Your task to perform on an android device: Open battery settings Image 0: 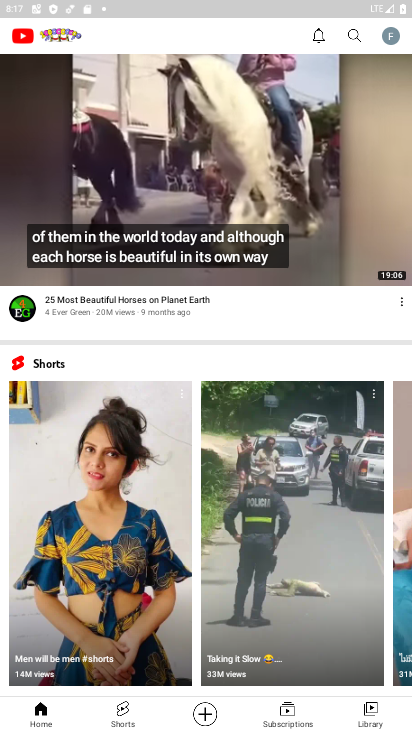
Step 0: drag from (257, 575) to (285, 150)
Your task to perform on an android device: Open battery settings Image 1: 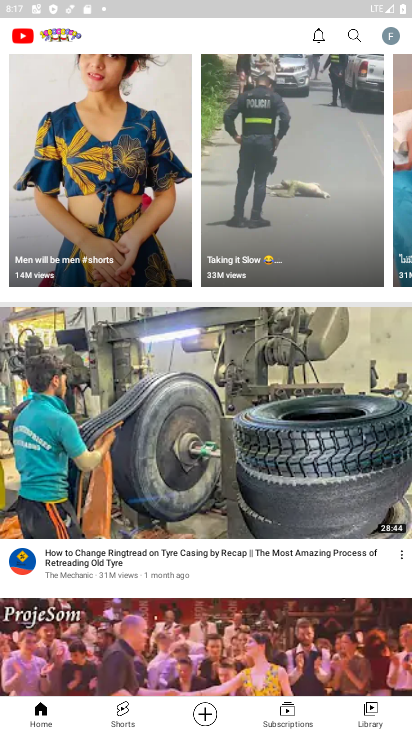
Step 1: press home button
Your task to perform on an android device: Open battery settings Image 2: 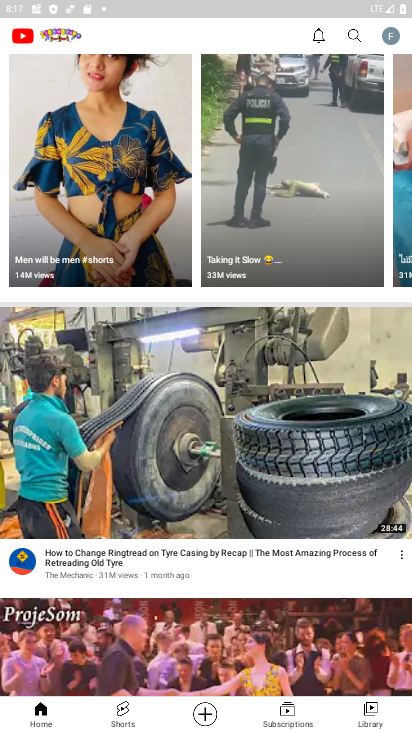
Step 2: press home button
Your task to perform on an android device: Open battery settings Image 3: 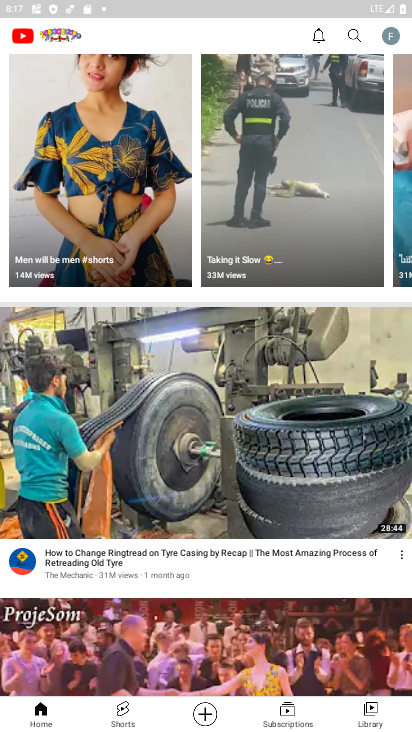
Step 3: drag from (206, 508) to (274, 236)
Your task to perform on an android device: Open battery settings Image 4: 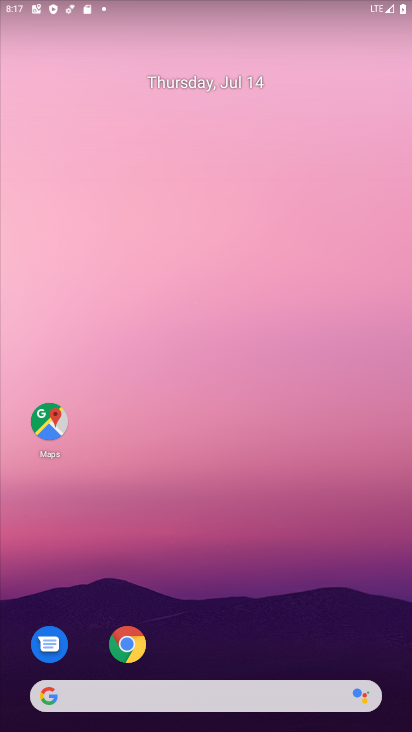
Step 4: drag from (176, 616) to (265, 126)
Your task to perform on an android device: Open battery settings Image 5: 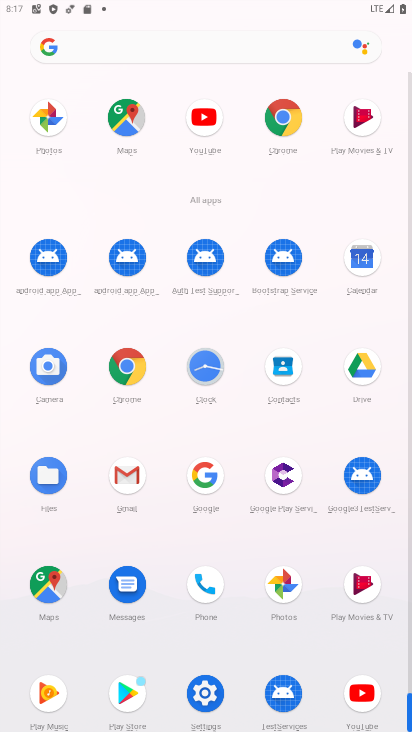
Step 5: click (179, 706)
Your task to perform on an android device: Open battery settings Image 6: 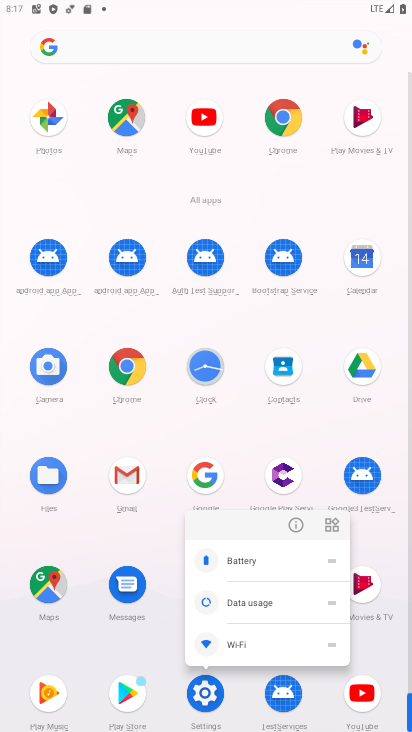
Step 6: click (240, 563)
Your task to perform on an android device: Open battery settings Image 7: 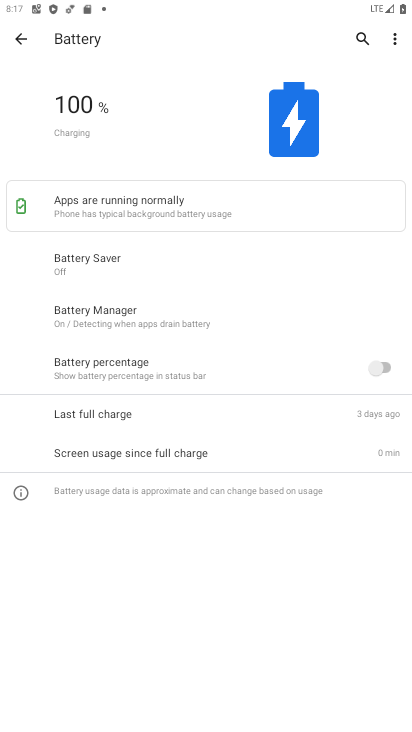
Step 7: drag from (269, 541) to (265, 52)
Your task to perform on an android device: Open battery settings Image 8: 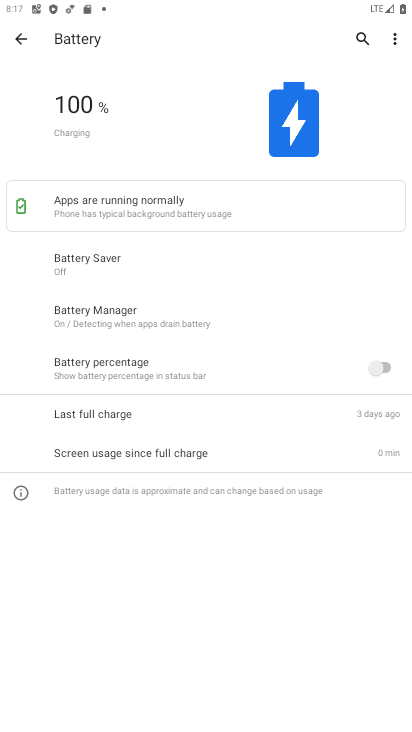
Step 8: drag from (179, 153) to (226, 372)
Your task to perform on an android device: Open battery settings Image 9: 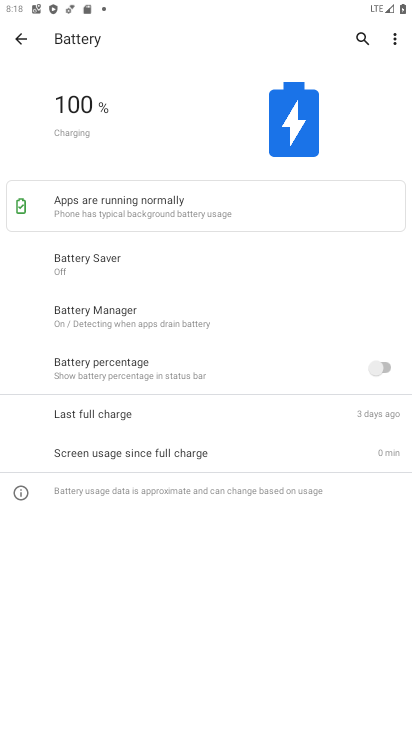
Step 9: drag from (211, 402) to (238, 234)
Your task to perform on an android device: Open battery settings Image 10: 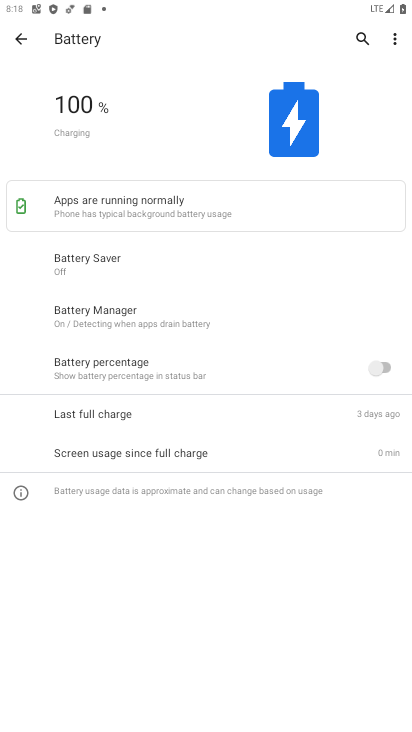
Step 10: click (170, 131)
Your task to perform on an android device: Open battery settings Image 11: 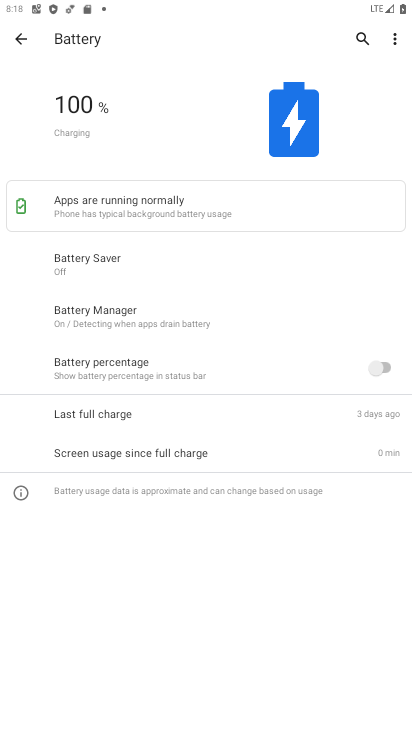
Step 11: task complete